Your task to perform on an android device: toggle show notifications on the lock screen Image 0: 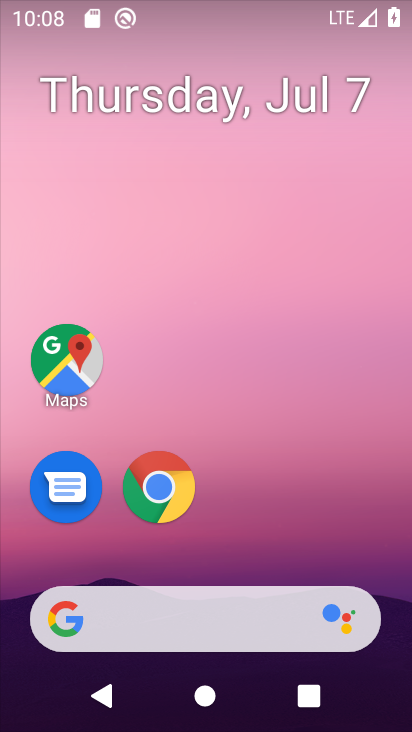
Step 0: drag from (372, 542) to (350, 136)
Your task to perform on an android device: toggle show notifications on the lock screen Image 1: 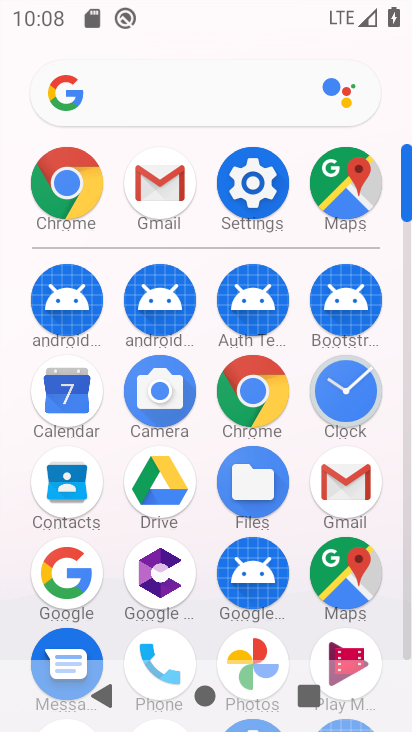
Step 1: click (268, 191)
Your task to perform on an android device: toggle show notifications on the lock screen Image 2: 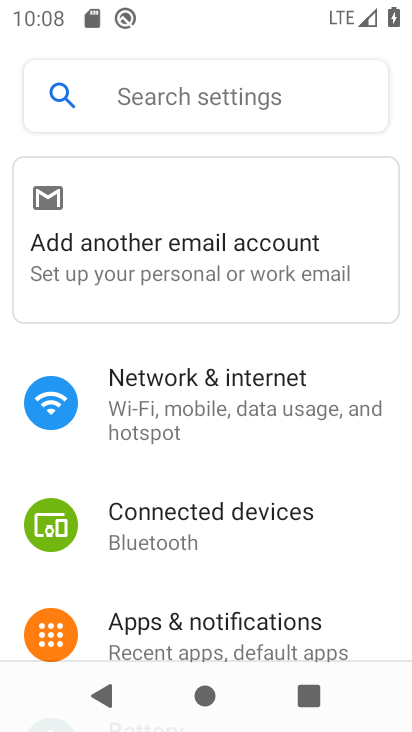
Step 2: drag from (370, 494) to (362, 353)
Your task to perform on an android device: toggle show notifications on the lock screen Image 3: 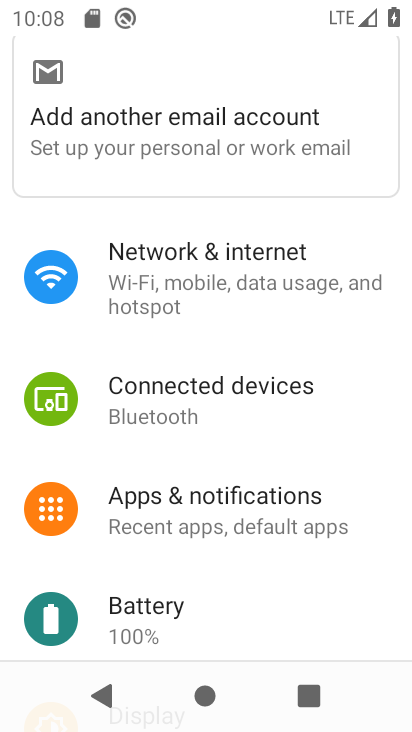
Step 3: drag from (371, 562) to (371, 391)
Your task to perform on an android device: toggle show notifications on the lock screen Image 4: 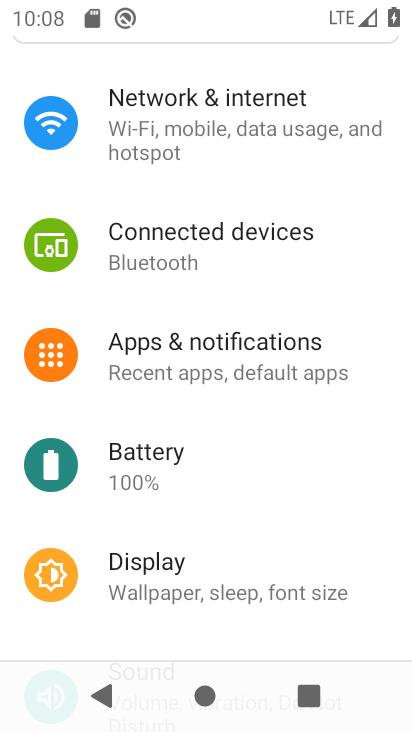
Step 4: drag from (359, 556) to (364, 378)
Your task to perform on an android device: toggle show notifications on the lock screen Image 5: 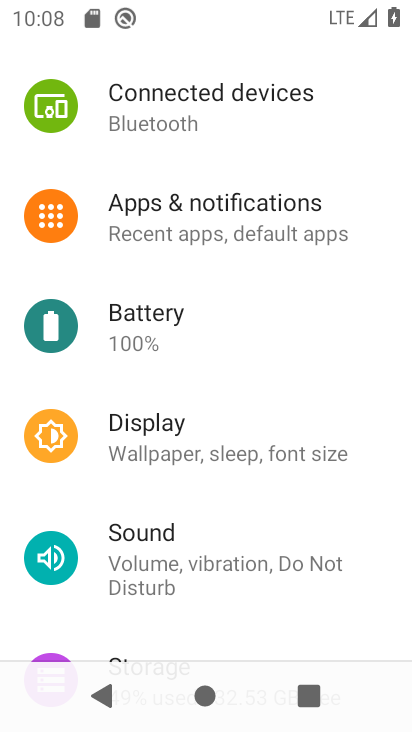
Step 5: drag from (381, 623) to (368, 432)
Your task to perform on an android device: toggle show notifications on the lock screen Image 6: 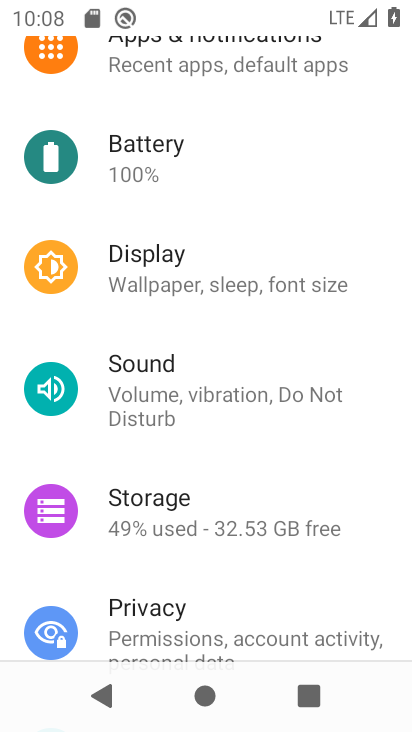
Step 6: drag from (374, 591) to (375, 410)
Your task to perform on an android device: toggle show notifications on the lock screen Image 7: 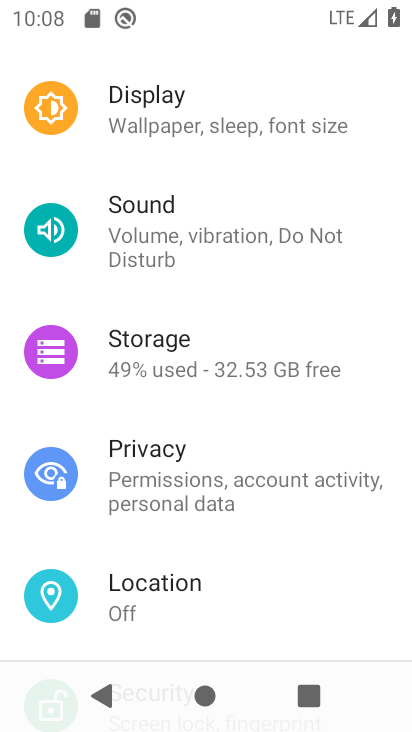
Step 7: drag from (346, 581) to (365, 368)
Your task to perform on an android device: toggle show notifications on the lock screen Image 8: 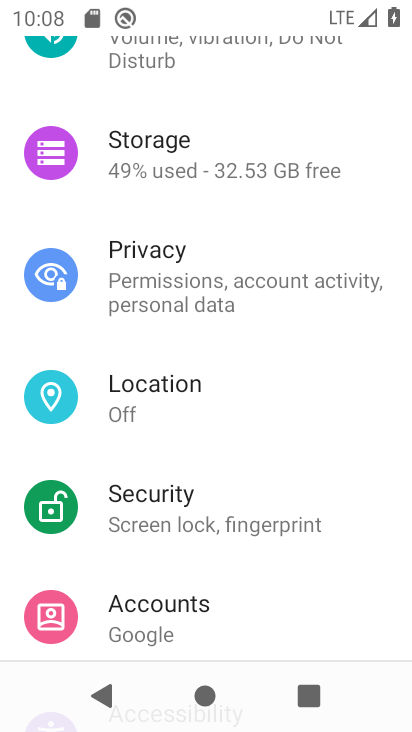
Step 8: drag from (363, 569) to (365, 404)
Your task to perform on an android device: toggle show notifications on the lock screen Image 9: 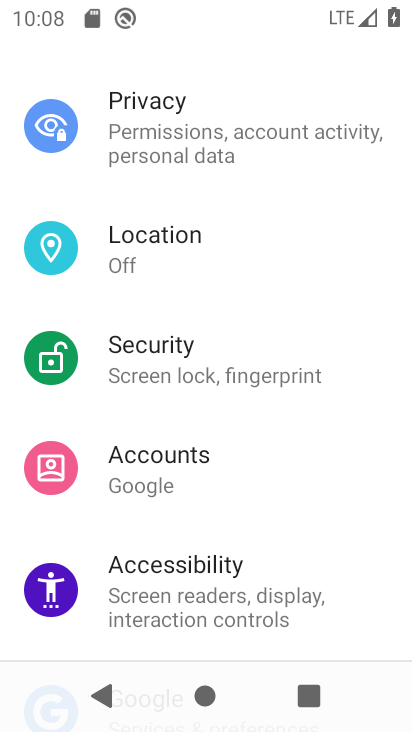
Step 9: drag from (360, 534) to (357, 392)
Your task to perform on an android device: toggle show notifications on the lock screen Image 10: 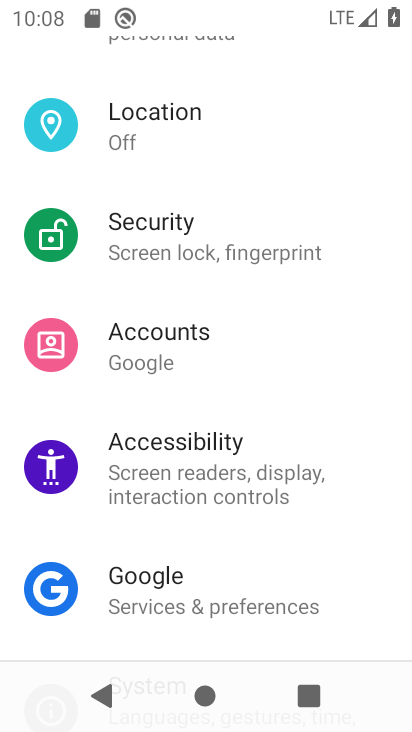
Step 10: drag from (357, 531) to (356, 386)
Your task to perform on an android device: toggle show notifications on the lock screen Image 11: 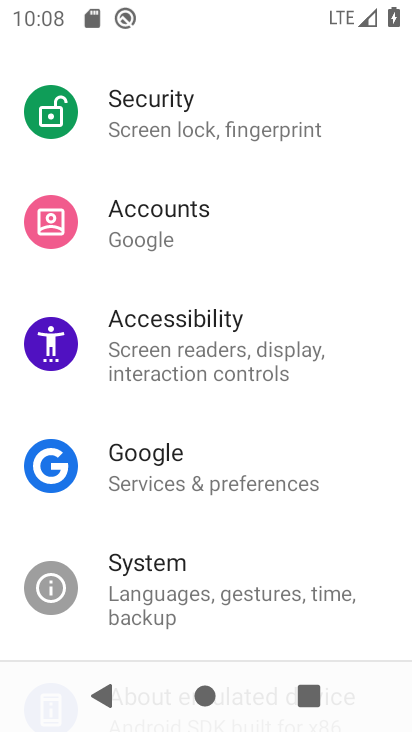
Step 11: drag from (356, 522) to (354, 355)
Your task to perform on an android device: toggle show notifications on the lock screen Image 12: 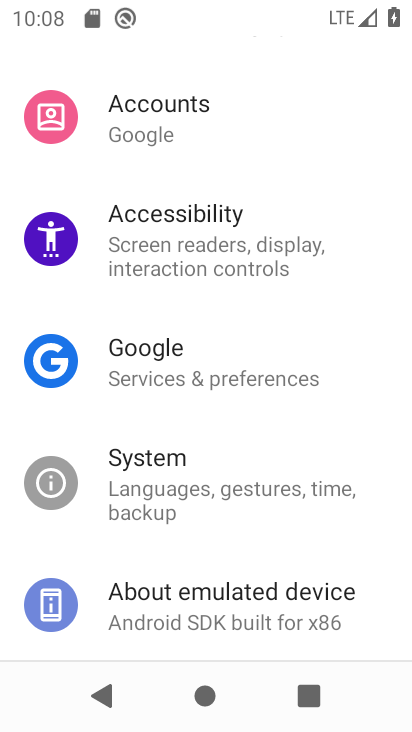
Step 12: drag from (354, 262) to (370, 413)
Your task to perform on an android device: toggle show notifications on the lock screen Image 13: 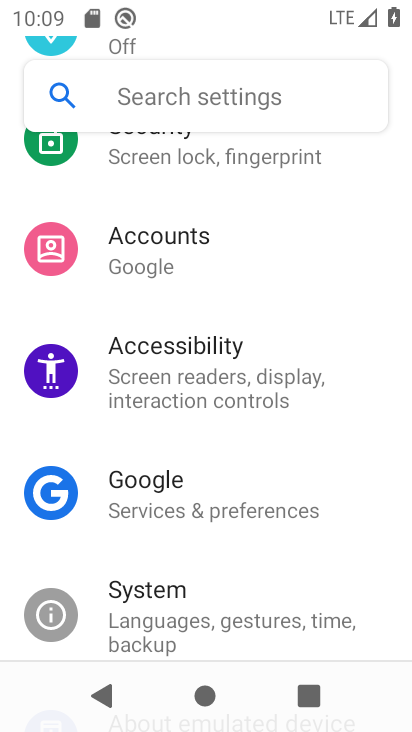
Step 13: drag from (361, 224) to (376, 385)
Your task to perform on an android device: toggle show notifications on the lock screen Image 14: 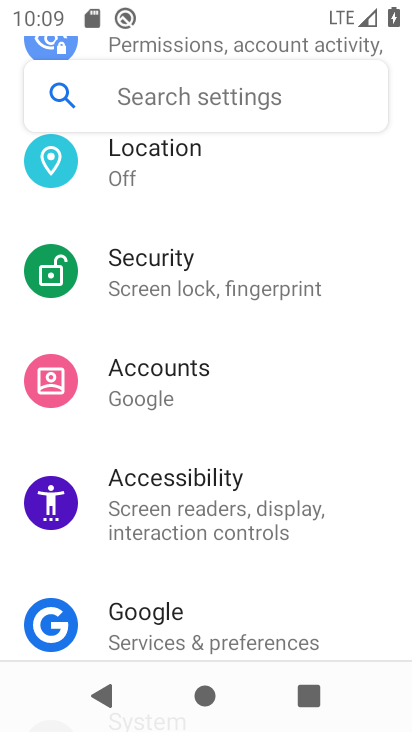
Step 14: drag from (360, 225) to (360, 406)
Your task to perform on an android device: toggle show notifications on the lock screen Image 15: 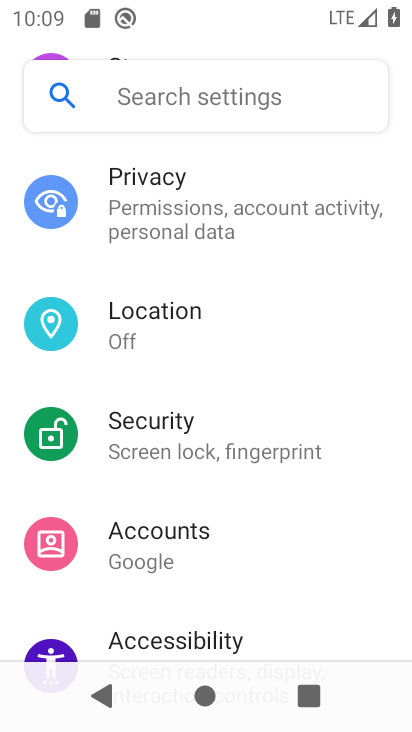
Step 15: drag from (343, 263) to (346, 407)
Your task to perform on an android device: toggle show notifications on the lock screen Image 16: 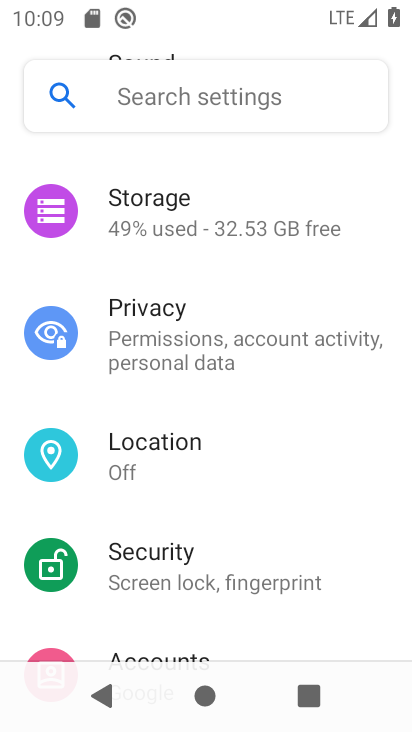
Step 16: drag from (358, 187) to (365, 373)
Your task to perform on an android device: toggle show notifications on the lock screen Image 17: 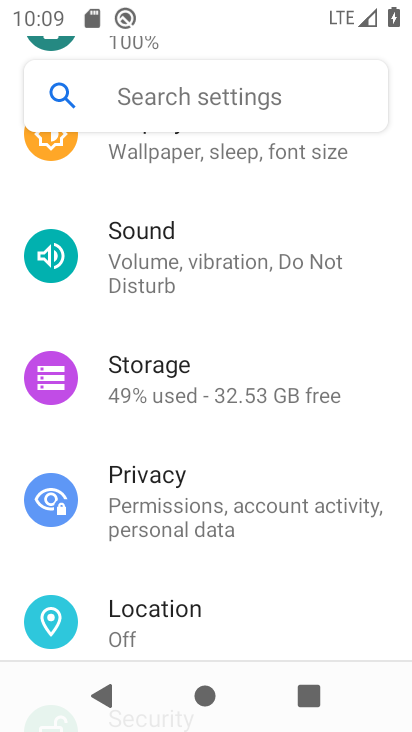
Step 17: drag from (367, 206) to (376, 376)
Your task to perform on an android device: toggle show notifications on the lock screen Image 18: 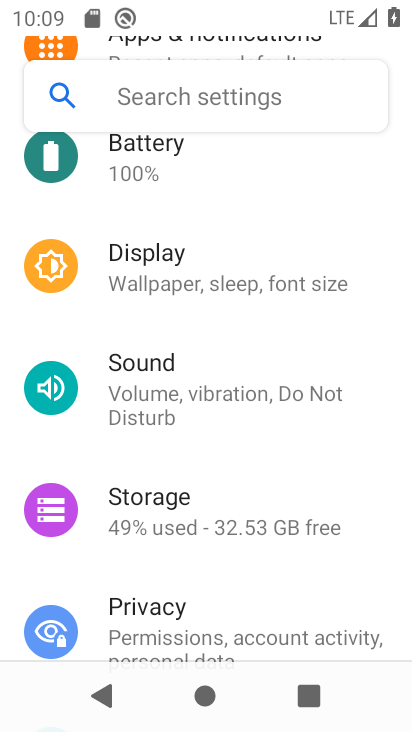
Step 18: drag from (375, 252) to (374, 439)
Your task to perform on an android device: toggle show notifications on the lock screen Image 19: 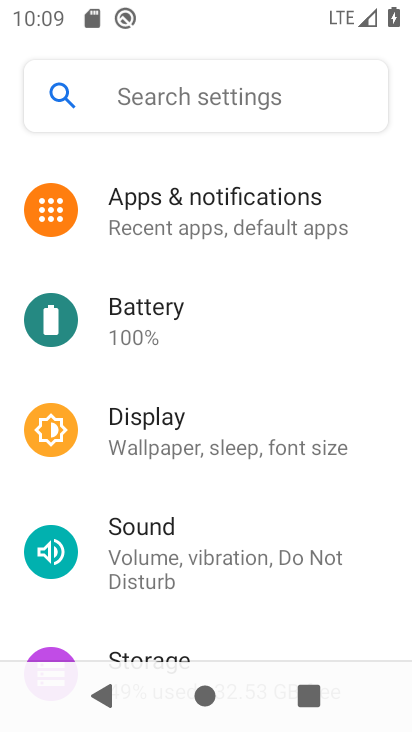
Step 19: click (310, 220)
Your task to perform on an android device: toggle show notifications on the lock screen Image 20: 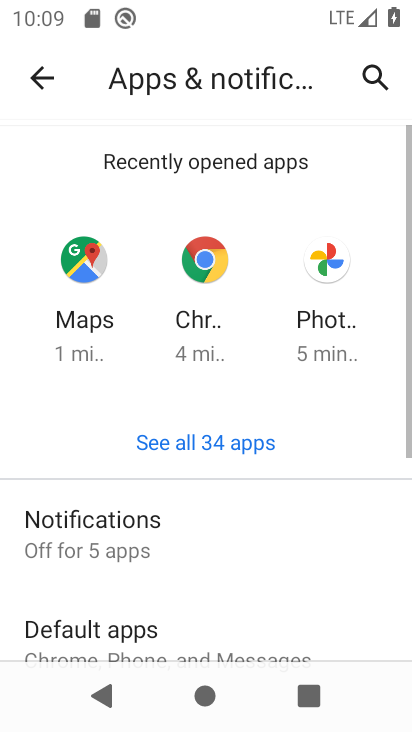
Step 20: drag from (304, 480) to (293, 327)
Your task to perform on an android device: toggle show notifications on the lock screen Image 21: 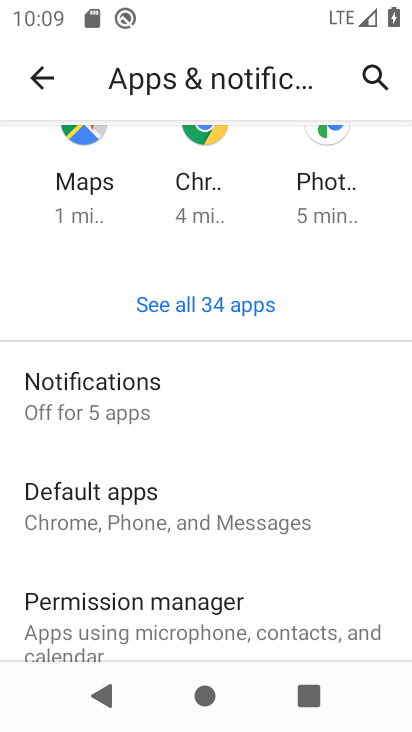
Step 21: click (127, 402)
Your task to perform on an android device: toggle show notifications on the lock screen Image 22: 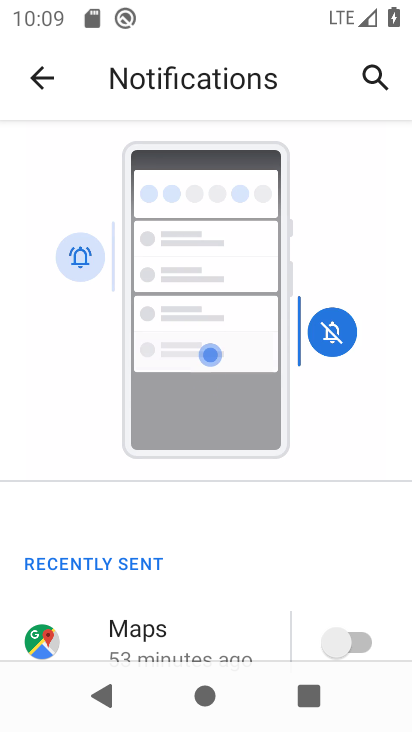
Step 22: drag from (280, 544) to (278, 370)
Your task to perform on an android device: toggle show notifications on the lock screen Image 23: 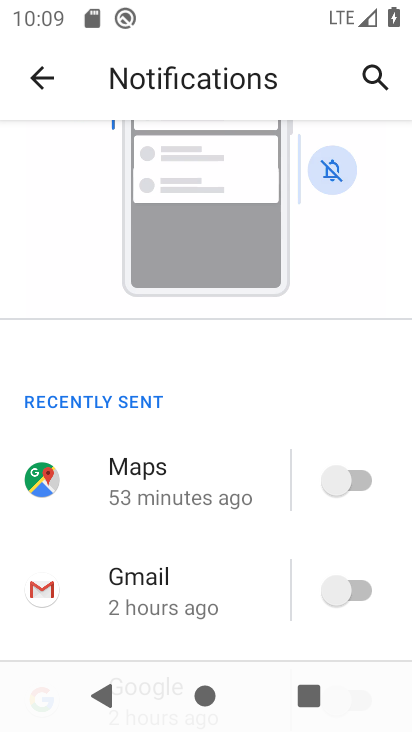
Step 23: drag from (256, 567) to (259, 362)
Your task to perform on an android device: toggle show notifications on the lock screen Image 24: 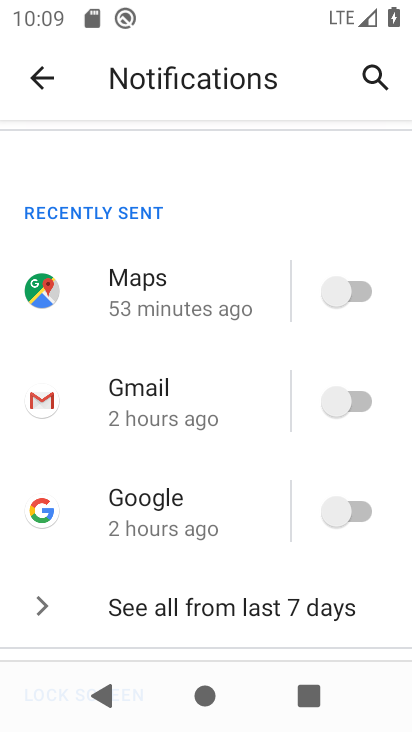
Step 24: drag from (262, 549) to (268, 394)
Your task to perform on an android device: toggle show notifications on the lock screen Image 25: 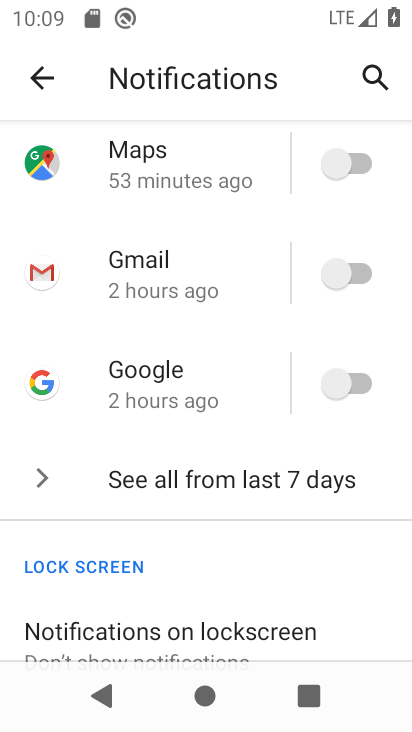
Step 25: drag from (277, 568) to (263, 370)
Your task to perform on an android device: toggle show notifications on the lock screen Image 26: 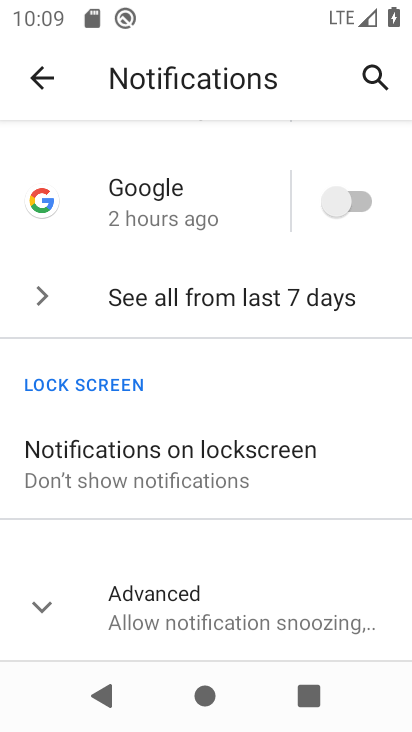
Step 26: click (220, 478)
Your task to perform on an android device: toggle show notifications on the lock screen Image 27: 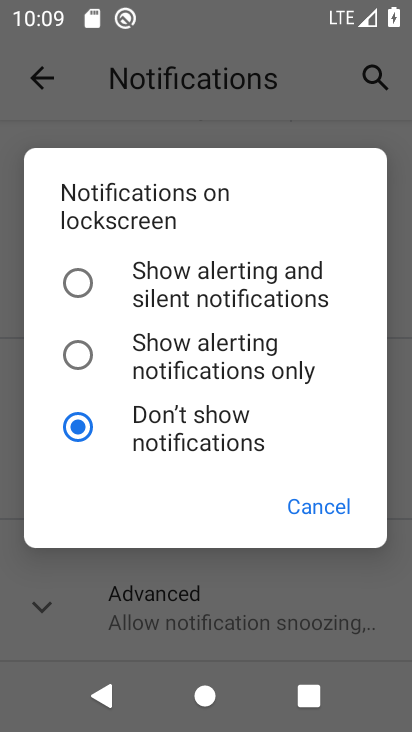
Step 27: click (82, 274)
Your task to perform on an android device: toggle show notifications on the lock screen Image 28: 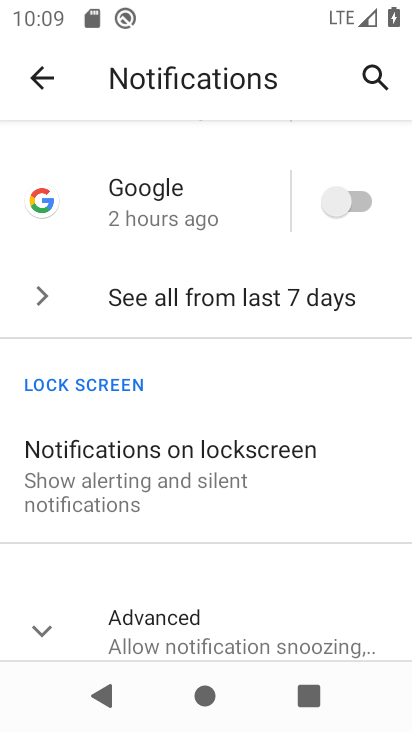
Step 28: task complete